Your task to perform on an android device: star an email in the gmail app Image 0: 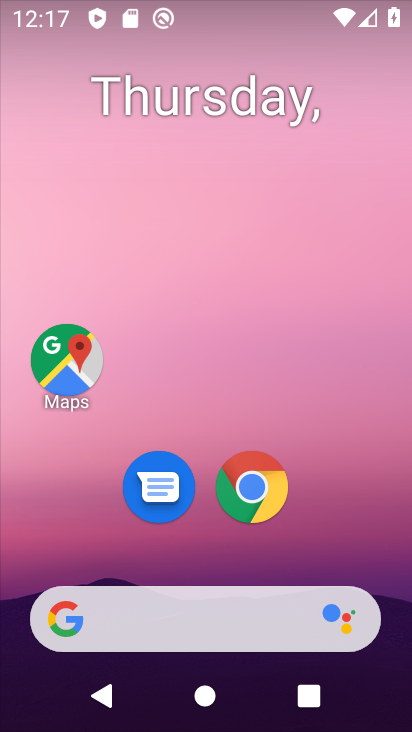
Step 0: drag from (384, 518) to (281, 9)
Your task to perform on an android device: star an email in the gmail app Image 1: 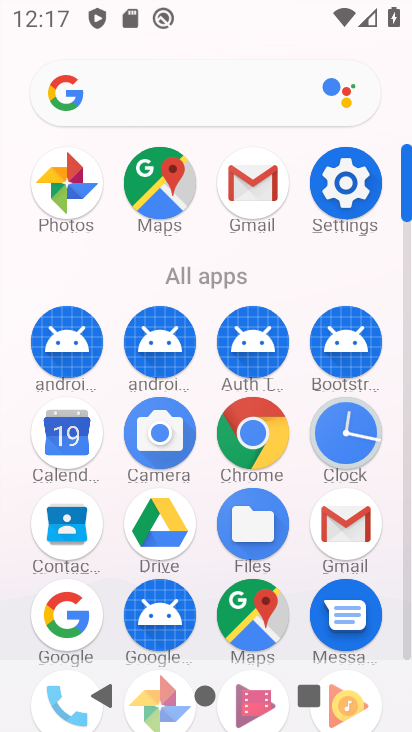
Step 1: click (267, 207)
Your task to perform on an android device: star an email in the gmail app Image 2: 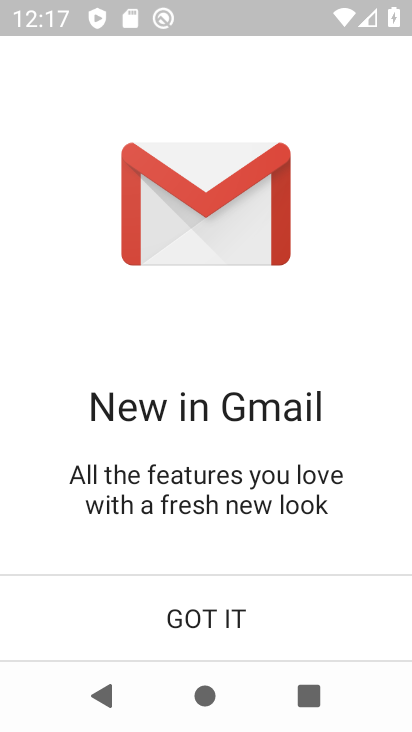
Step 2: click (226, 606)
Your task to perform on an android device: star an email in the gmail app Image 3: 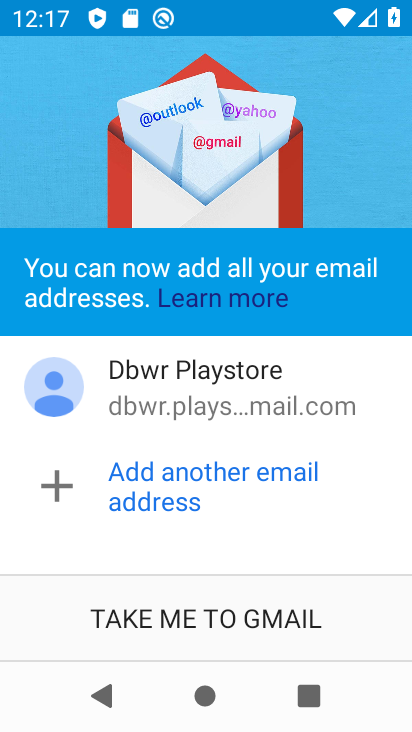
Step 3: click (226, 606)
Your task to perform on an android device: star an email in the gmail app Image 4: 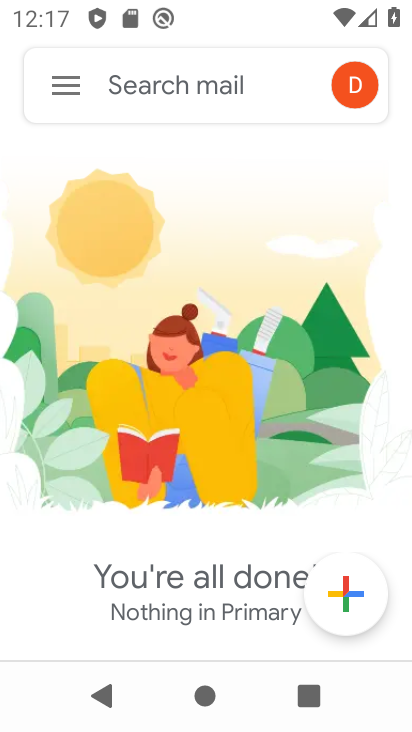
Step 4: task complete